Your task to perform on an android device: What is the news today? Image 0: 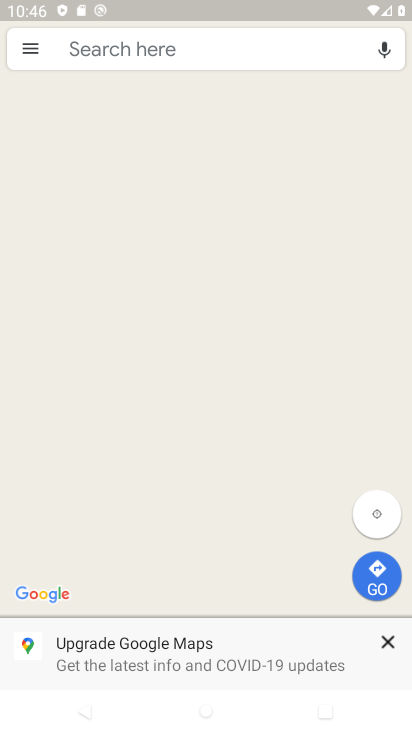
Step 0: press home button
Your task to perform on an android device: What is the news today? Image 1: 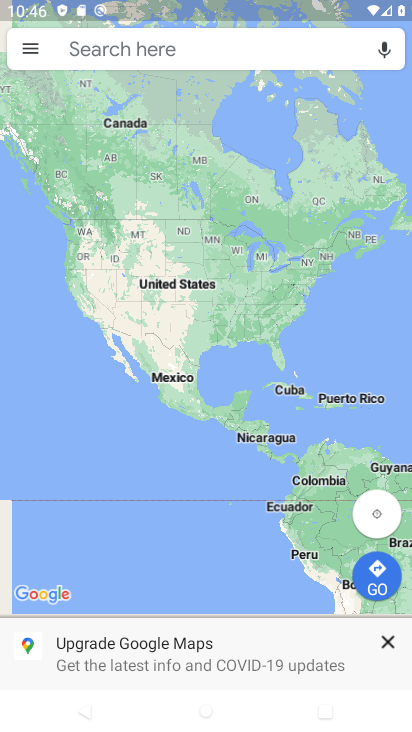
Step 1: drag from (389, 651) to (237, 64)
Your task to perform on an android device: What is the news today? Image 2: 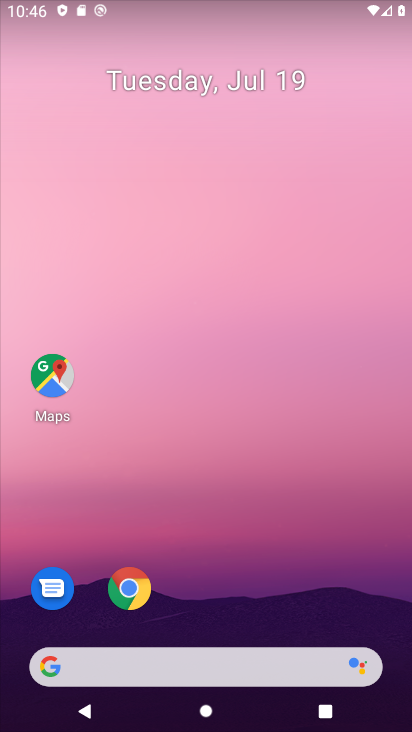
Step 2: drag from (315, 588) to (150, 55)
Your task to perform on an android device: What is the news today? Image 3: 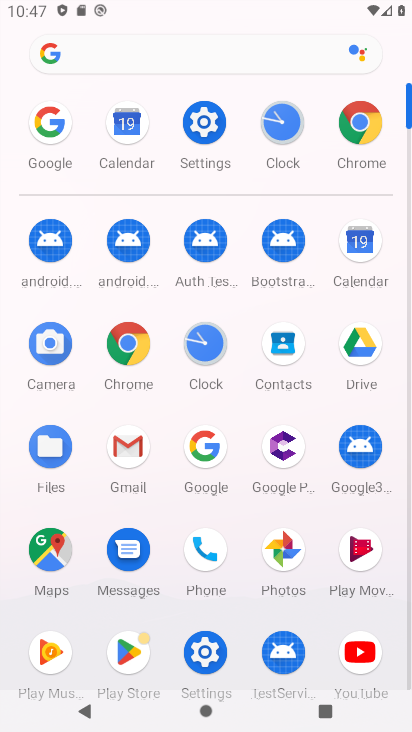
Step 3: click (189, 450)
Your task to perform on an android device: What is the news today? Image 4: 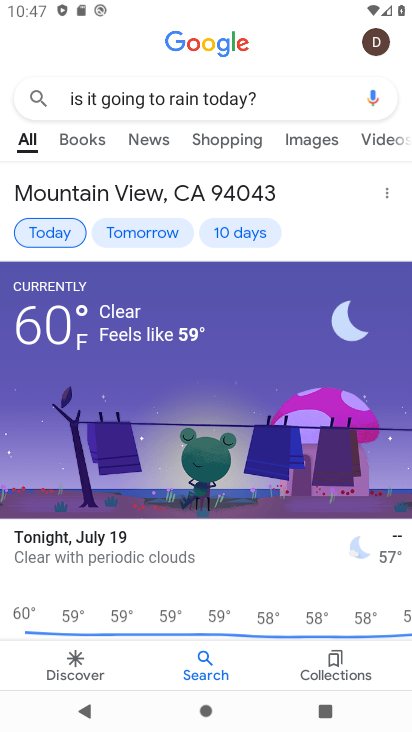
Step 4: press back button
Your task to perform on an android device: What is the news today? Image 5: 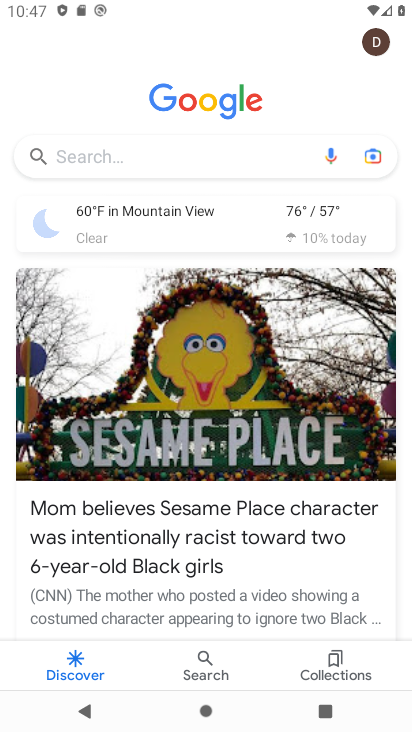
Step 5: click (149, 142)
Your task to perform on an android device: What is the news today? Image 6: 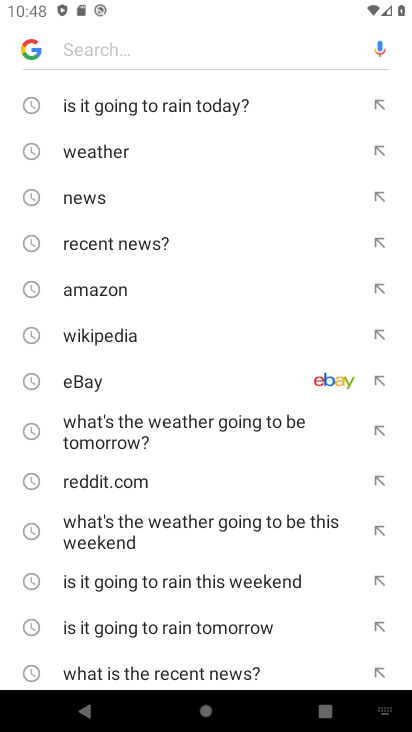
Step 6: type "What is the news today?"
Your task to perform on an android device: What is the news today? Image 7: 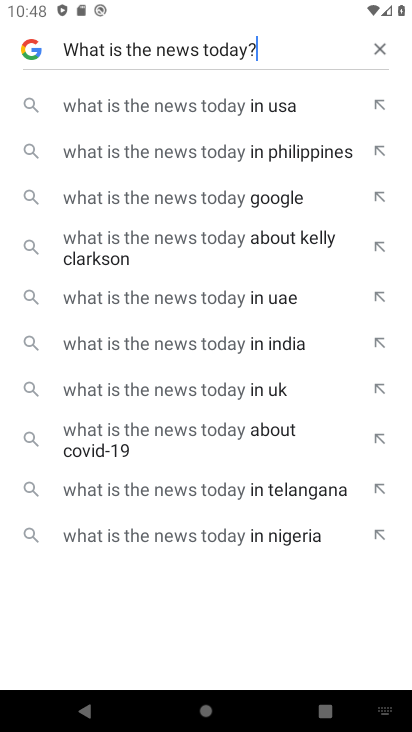
Step 7: click (154, 196)
Your task to perform on an android device: What is the news today? Image 8: 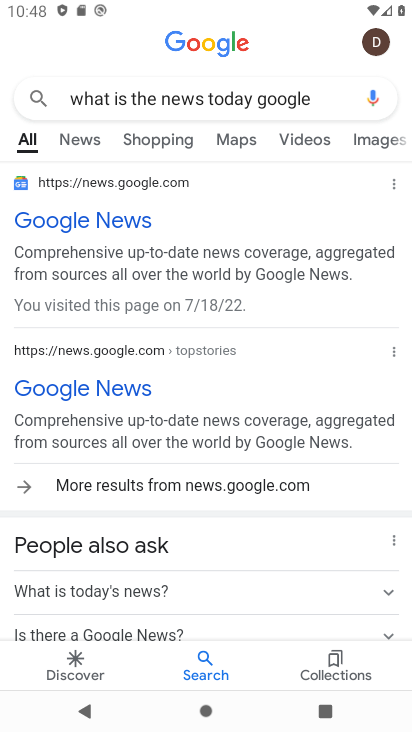
Step 8: task complete